Your task to perform on an android device: Search for sushi restaurants on Maps Image 0: 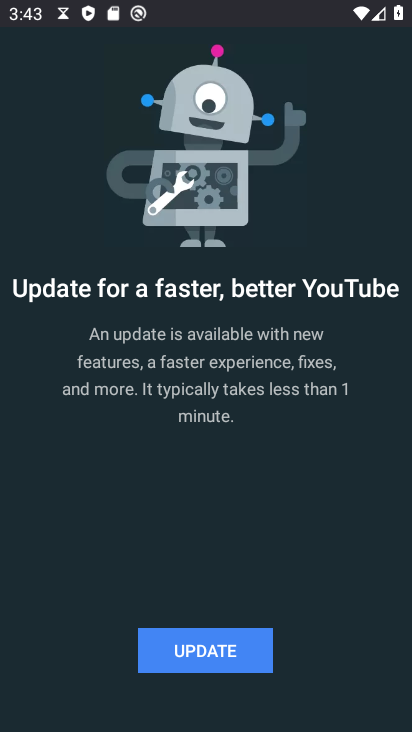
Step 0: press home button
Your task to perform on an android device: Search for sushi restaurants on Maps Image 1: 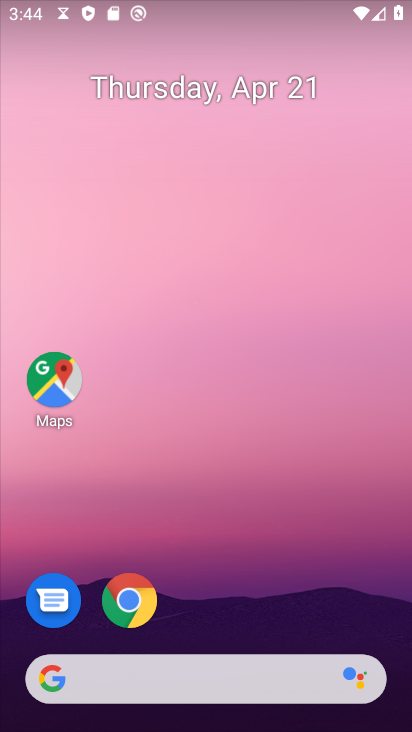
Step 1: click (57, 384)
Your task to perform on an android device: Search for sushi restaurants on Maps Image 2: 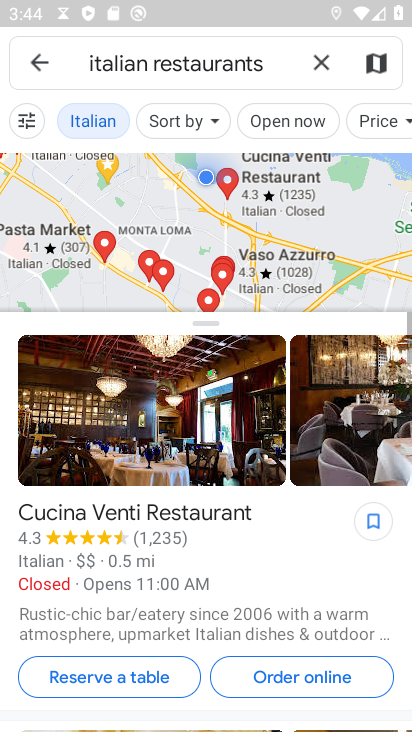
Step 2: click (320, 59)
Your task to perform on an android device: Search for sushi restaurants on Maps Image 3: 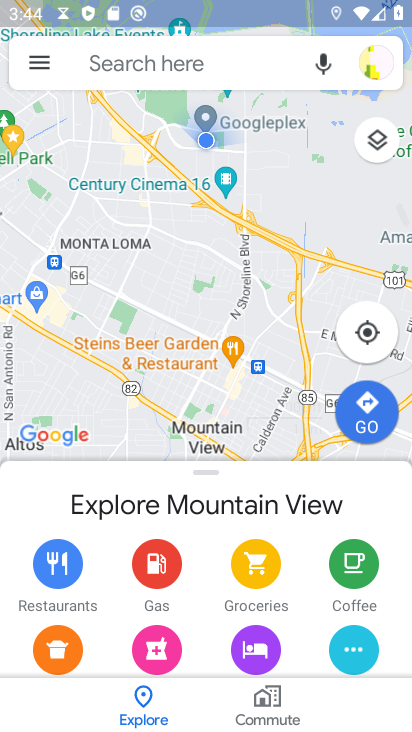
Step 3: click (224, 67)
Your task to perform on an android device: Search for sushi restaurants on Maps Image 4: 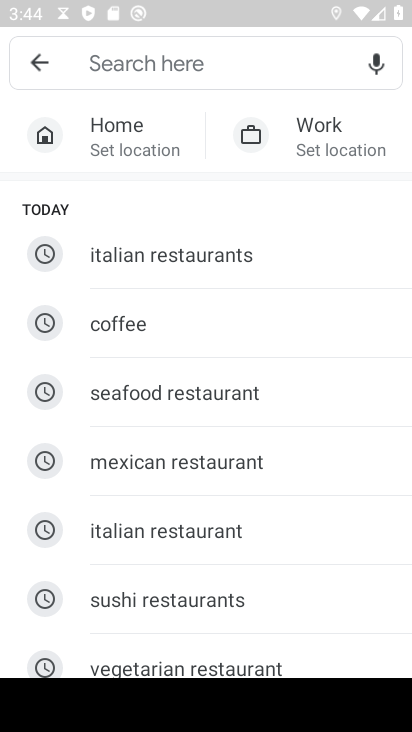
Step 4: type "sushi restaurants"
Your task to perform on an android device: Search for sushi restaurants on Maps Image 5: 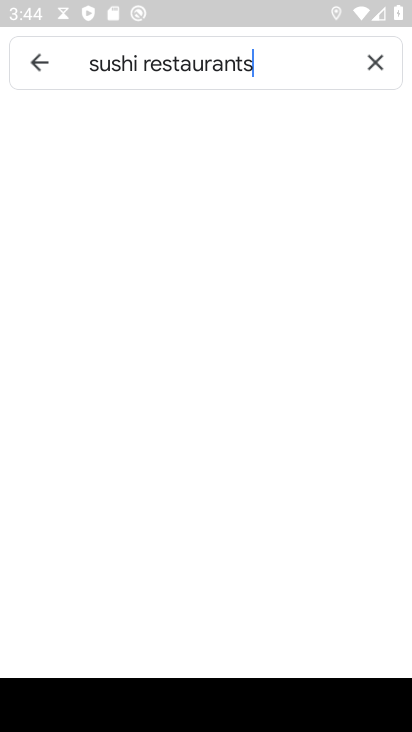
Step 5: type ""
Your task to perform on an android device: Search for sushi restaurants on Maps Image 6: 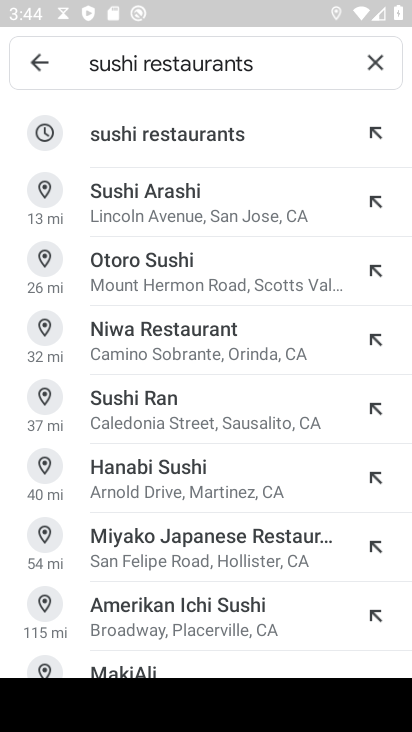
Step 6: click (205, 130)
Your task to perform on an android device: Search for sushi restaurants on Maps Image 7: 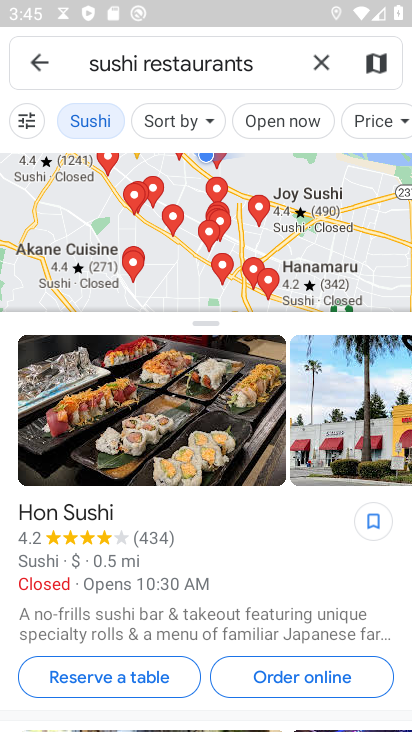
Step 7: task complete